Your task to perform on an android device: What's the news in Colombia? Image 0: 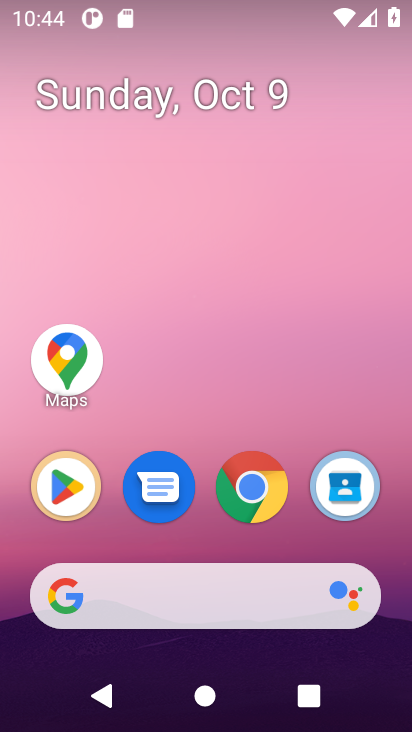
Step 0: click (249, 503)
Your task to perform on an android device: What's the news in Colombia? Image 1: 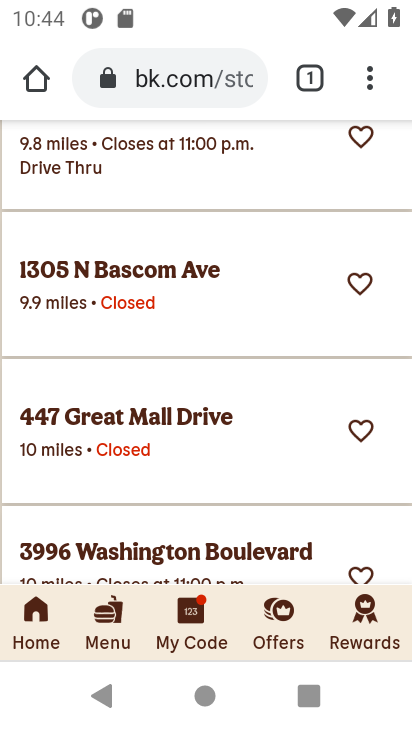
Step 1: drag from (252, 315) to (273, 567)
Your task to perform on an android device: What's the news in Colombia? Image 2: 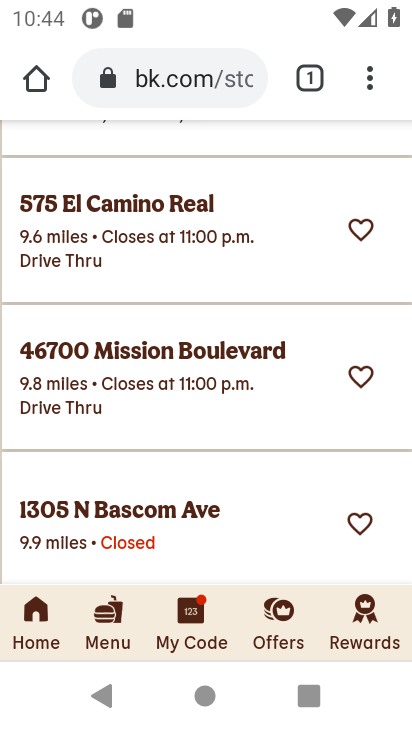
Step 2: drag from (243, 283) to (252, 502)
Your task to perform on an android device: What's the news in Colombia? Image 3: 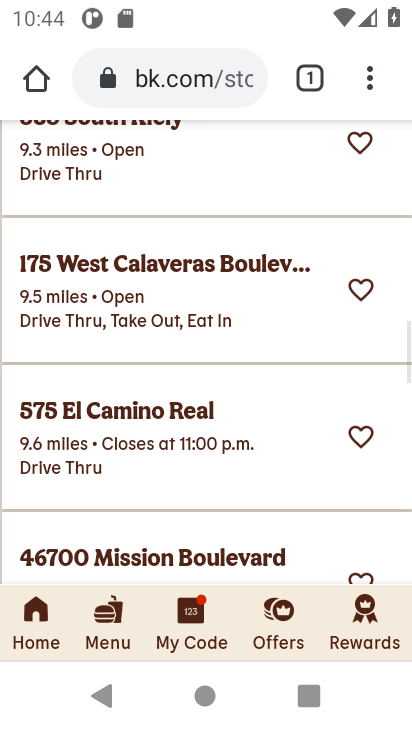
Step 3: drag from (260, 307) to (267, 534)
Your task to perform on an android device: What's the news in Colombia? Image 4: 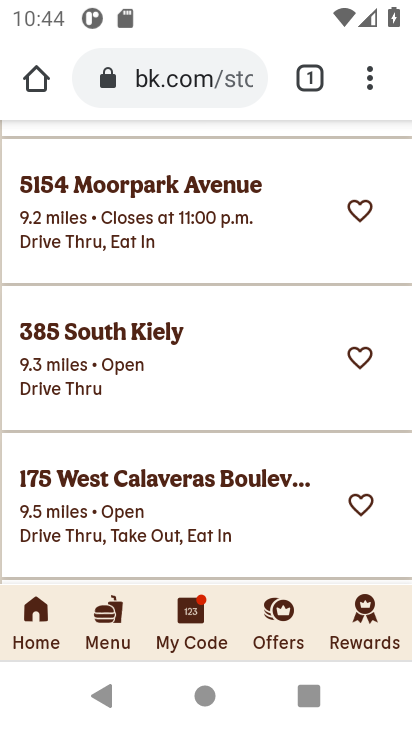
Step 4: click (182, 83)
Your task to perform on an android device: What's the news in Colombia? Image 5: 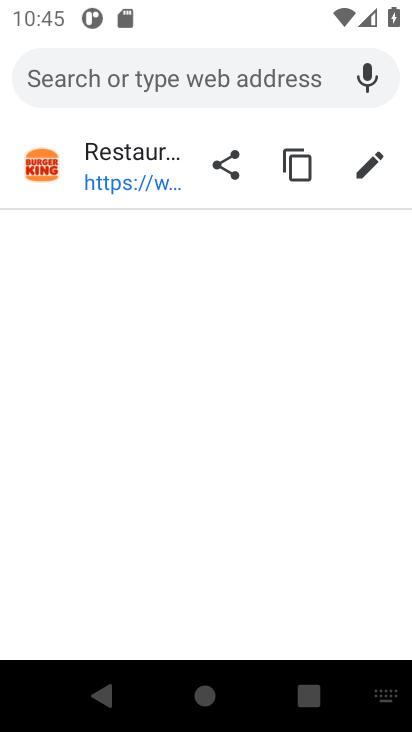
Step 5: type "news in Colombia"
Your task to perform on an android device: What's the news in Colombia? Image 6: 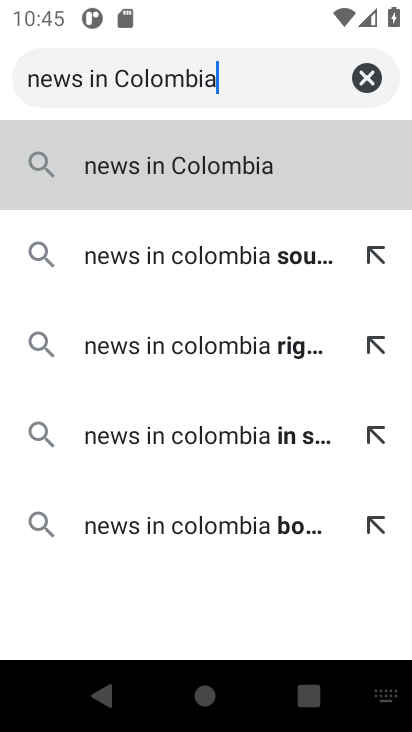
Step 6: press enter
Your task to perform on an android device: What's the news in Colombia? Image 7: 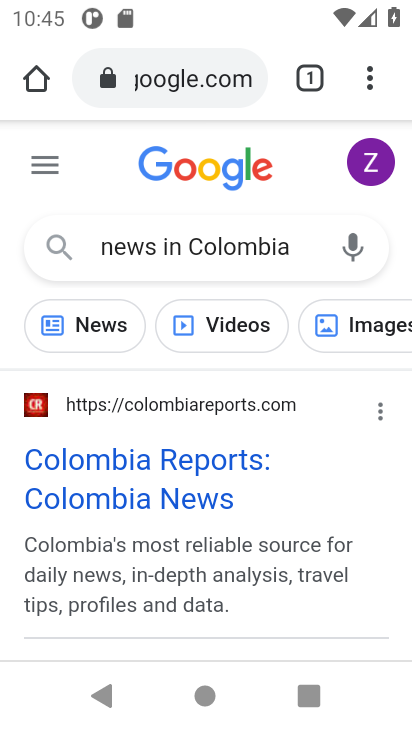
Step 7: drag from (276, 575) to (264, 284)
Your task to perform on an android device: What's the news in Colombia? Image 8: 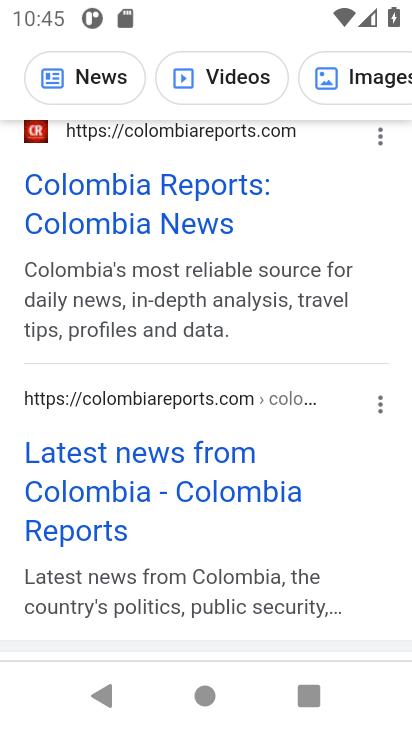
Step 8: drag from (280, 315) to (301, 462)
Your task to perform on an android device: What's the news in Colombia? Image 9: 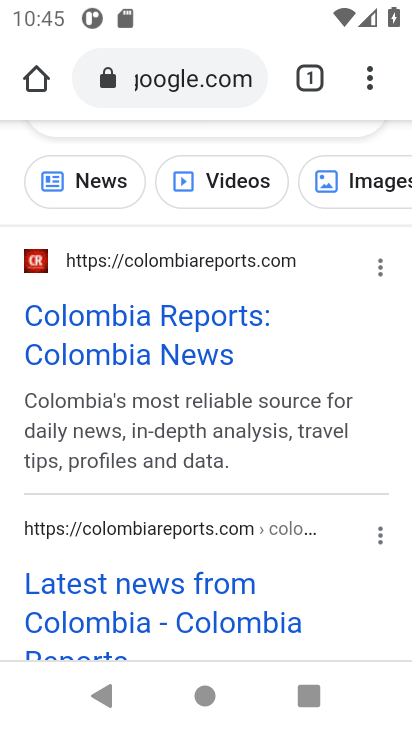
Step 9: click (94, 194)
Your task to perform on an android device: What's the news in Colombia? Image 10: 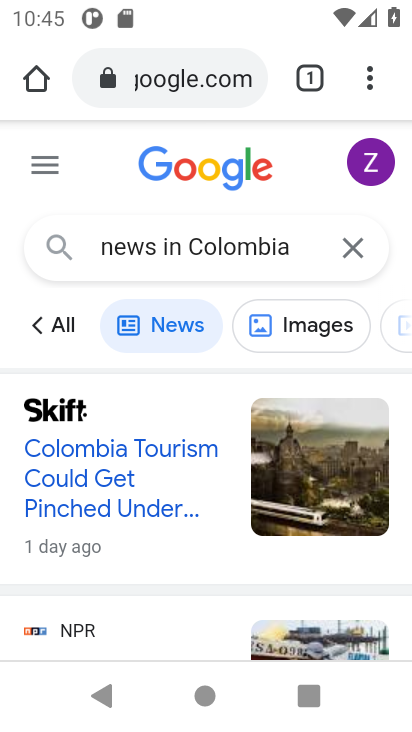
Step 10: task complete